Your task to perform on an android device: turn off picture-in-picture Image 0: 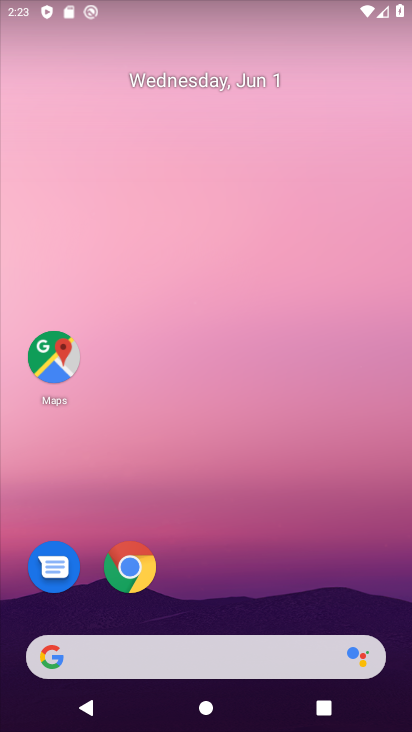
Step 0: click (140, 580)
Your task to perform on an android device: turn off picture-in-picture Image 1: 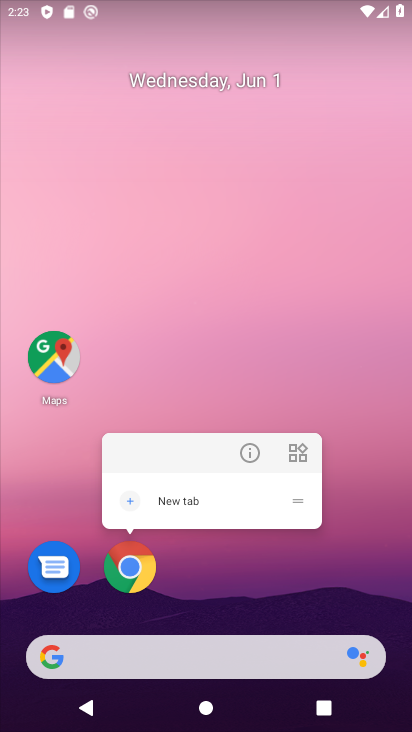
Step 1: click (251, 456)
Your task to perform on an android device: turn off picture-in-picture Image 2: 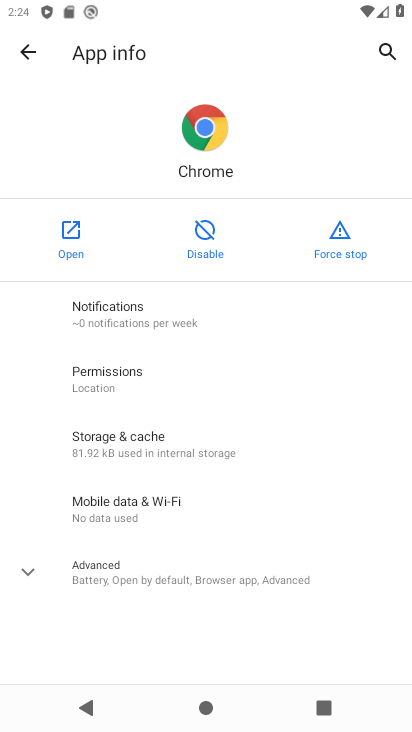
Step 2: click (216, 586)
Your task to perform on an android device: turn off picture-in-picture Image 3: 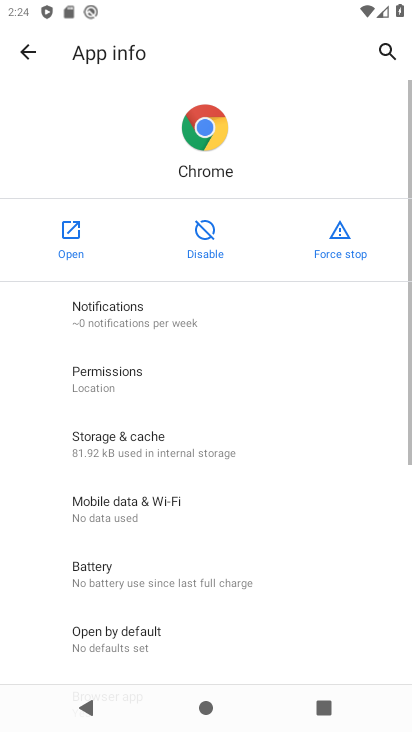
Step 3: drag from (199, 639) to (199, 365)
Your task to perform on an android device: turn off picture-in-picture Image 4: 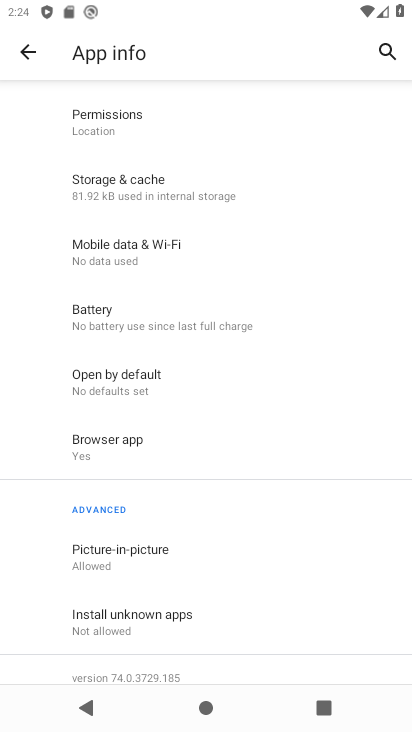
Step 4: click (157, 552)
Your task to perform on an android device: turn off picture-in-picture Image 5: 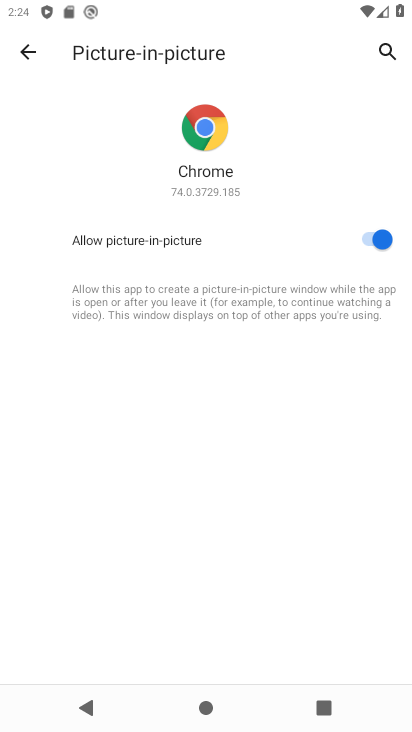
Step 5: click (376, 245)
Your task to perform on an android device: turn off picture-in-picture Image 6: 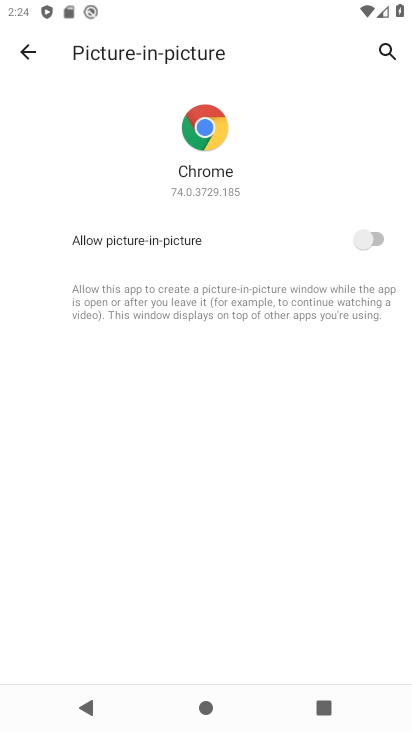
Step 6: task complete